Your task to perform on an android device: turn off improve location accuracy Image 0: 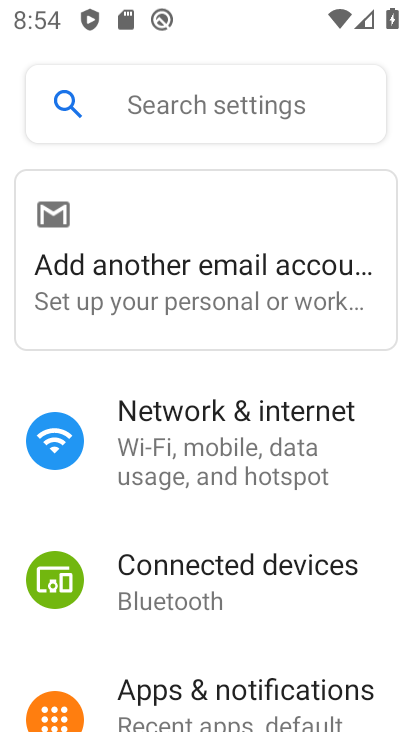
Step 0: drag from (198, 635) to (257, 144)
Your task to perform on an android device: turn off improve location accuracy Image 1: 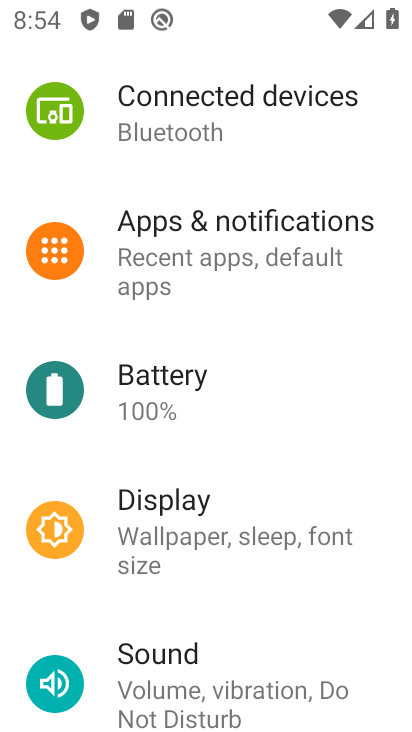
Step 1: drag from (99, 611) to (169, 234)
Your task to perform on an android device: turn off improve location accuracy Image 2: 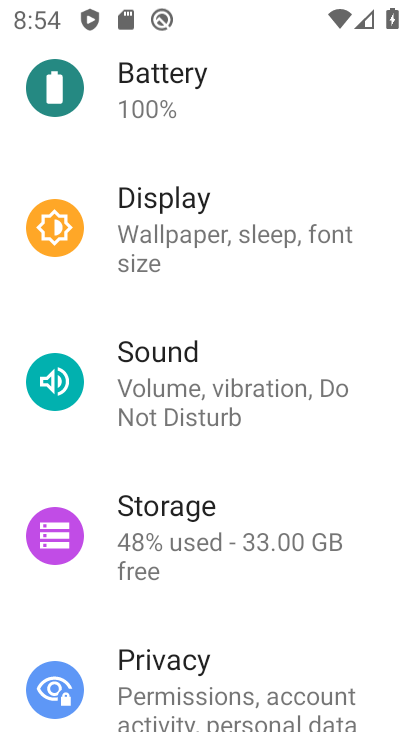
Step 2: drag from (147, 618) to (198, 135)
Your task to perform on an android device: turn off improve location accuracy Image 3: 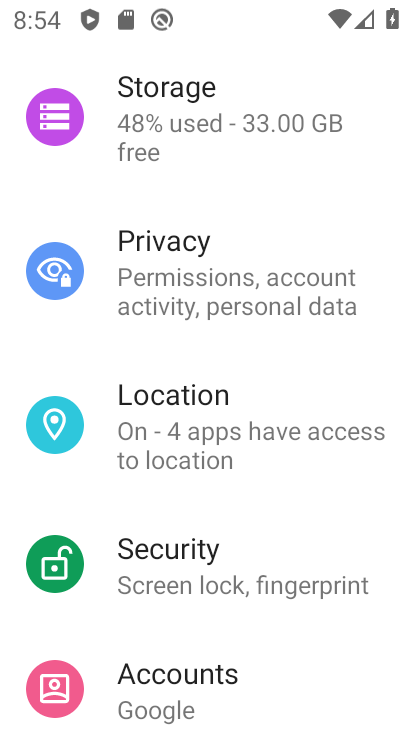
Step 3: click (246, 451)
Your task to perform on an android device: turn off improve location accuracy Image 4: 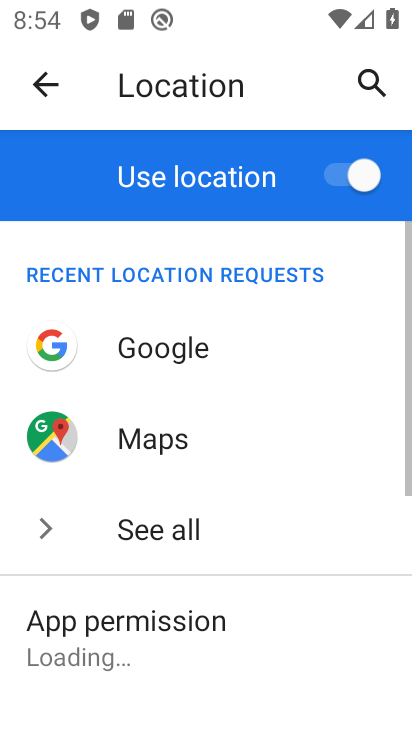
Step 4: drag from (172, 646) to (245, 139)
Your task to perform on an android device: turn off improve location accuracy Image 5: 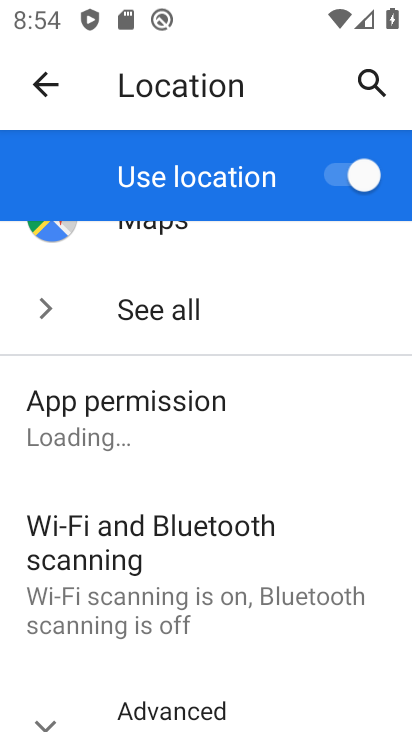
Step 5: drag from (145, 631) to (239, 76)
Your task to perform on an android device: turn off improve location accuracy Image 6: 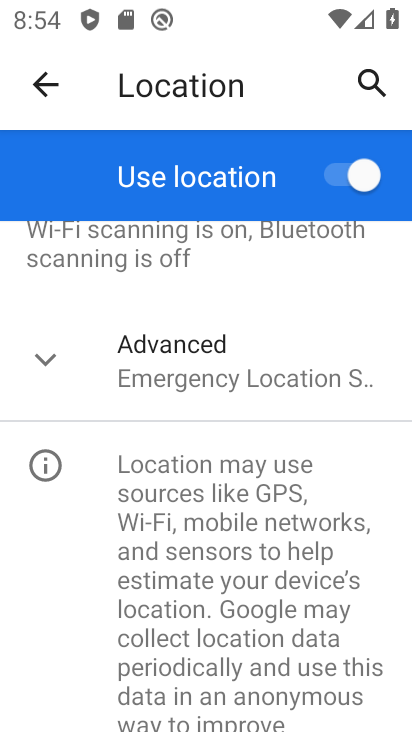
Step 6: click (147, 401)
Your task to perform on an android device: turn off improve location accuracy Image 7: 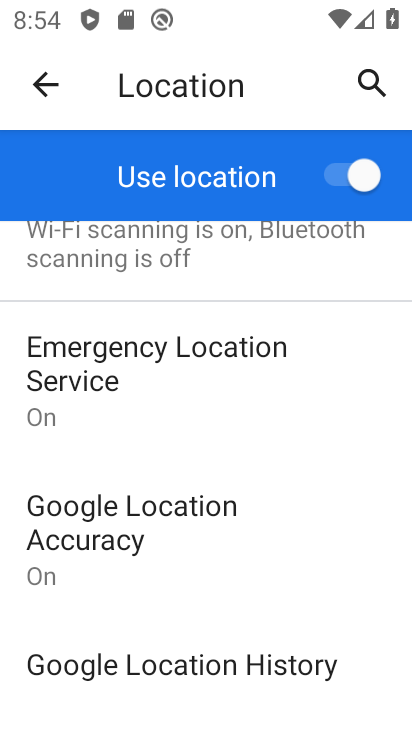
Step 7: click (228, 548)
Your task to perform on an android device: turn off improve location accuracy Image 8: 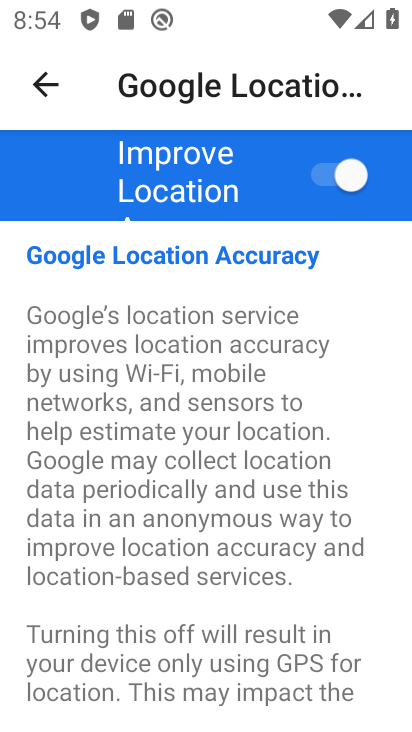
Step 8: click (317, 187)
Your task to perform on an android device: turn off improve location accuracy Image 9: 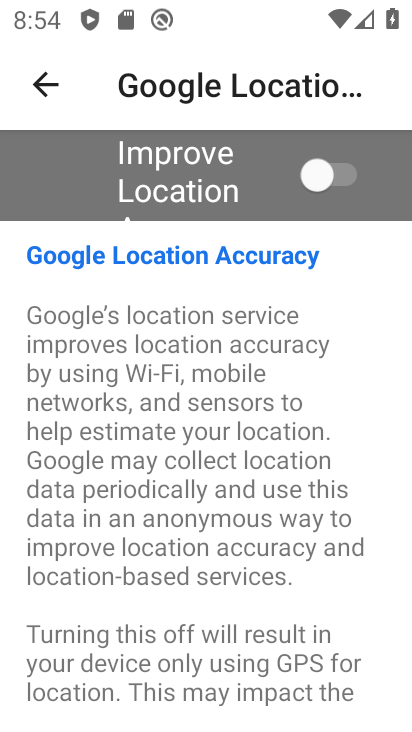
Step 9: task complete